Your task to perform on an android device: Clear the shopping cart on costco.com. Add "jbl charge 4" to the cart on costco.com, then select checkout. Image 0: 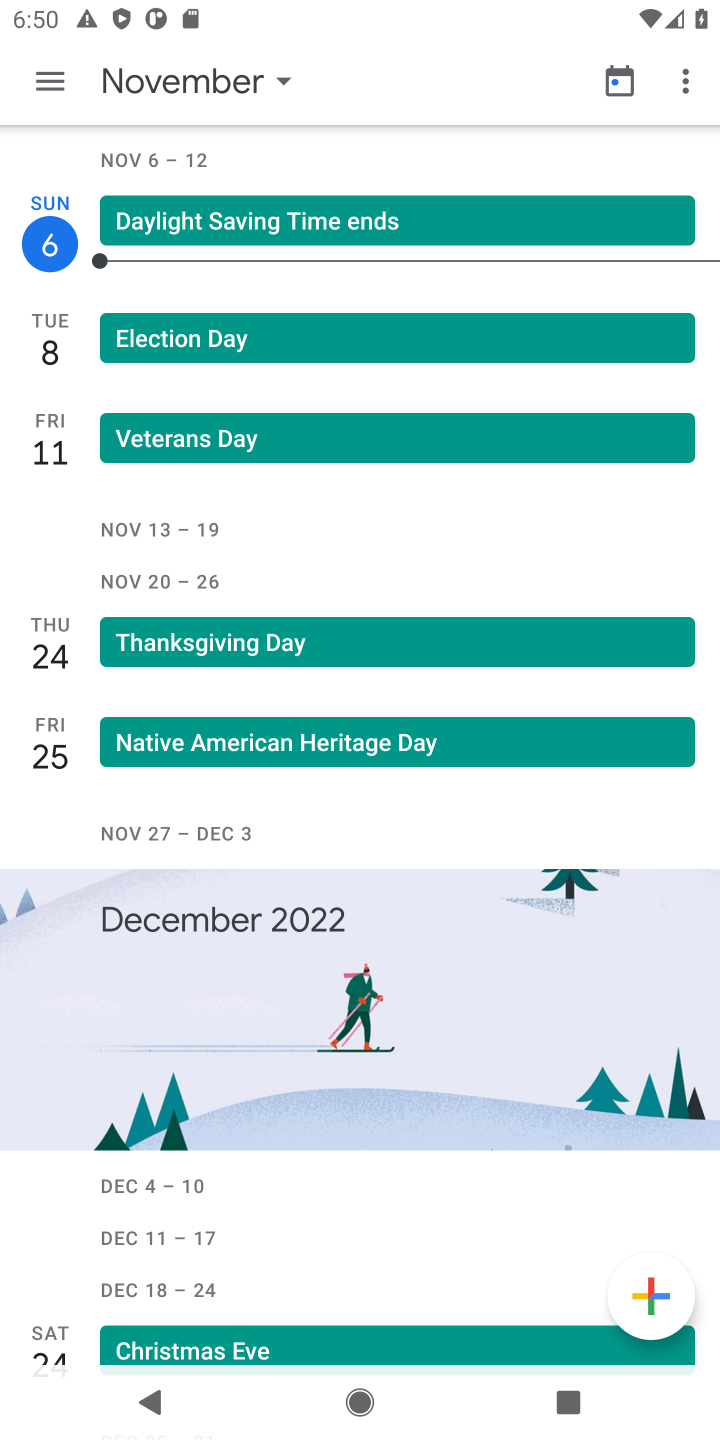
Step 0: press home button
Your task to perform on an android device: Clear the shopping cart on costco.com. Add "jbl charge 4" to the cart on costco.com, then select checkout. Image 1: 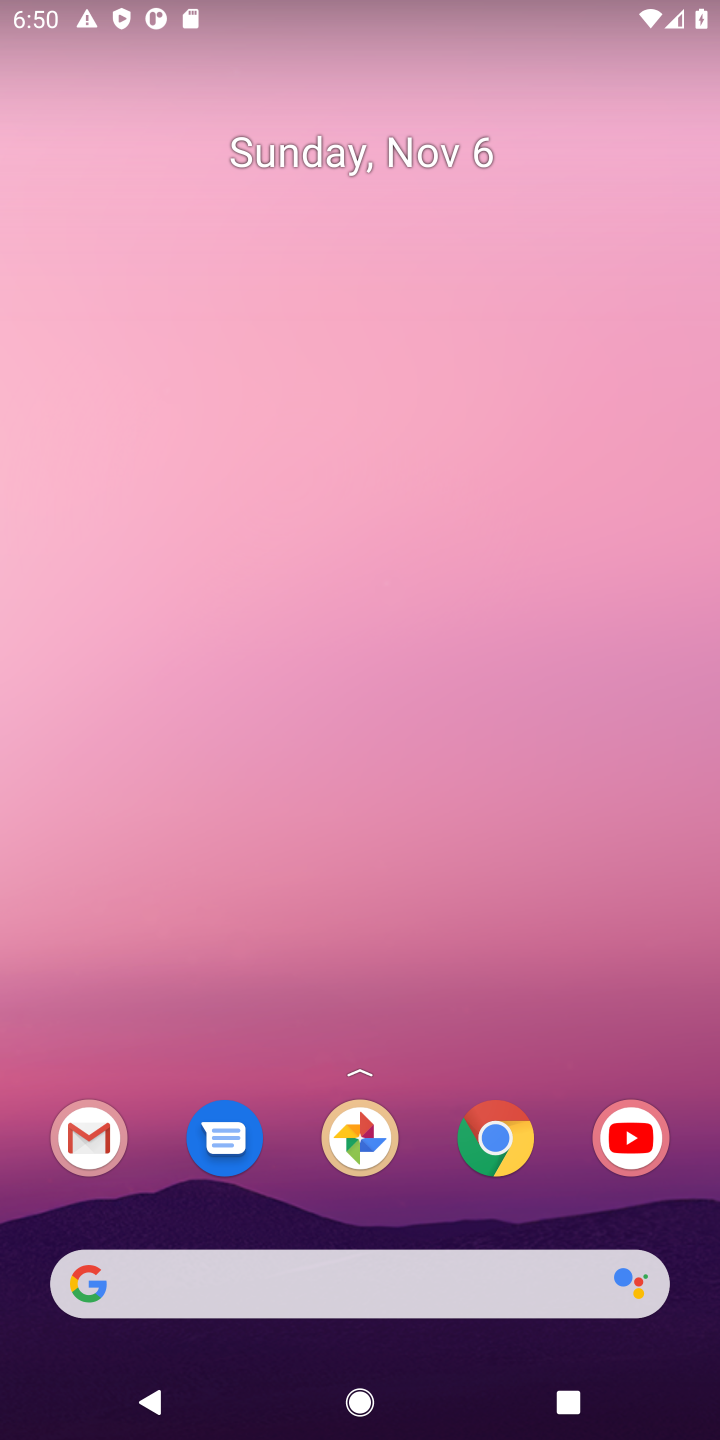
Step 1: click (481, 1143)
Your task to perform on an android device: Clear the shopping cart on costco.com. Add "jbl charge 4" to the cart on costco.com, then select checkout. Image 2: 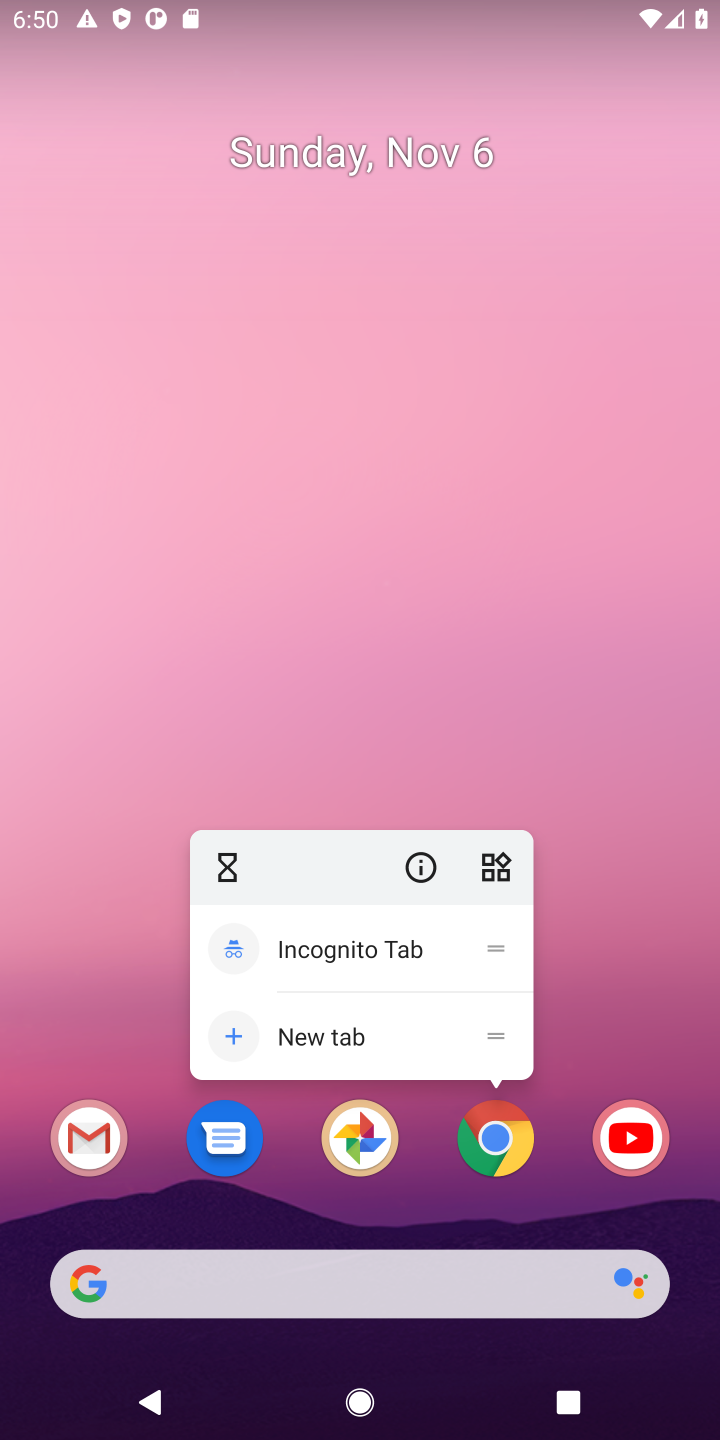
Step 2: click (487, 1145)
Your task to perform on an android device: Clear the shopping cart on costco.com. Add "jbl charge 4" to the cart on costco.com, then select checkout. Image 3: 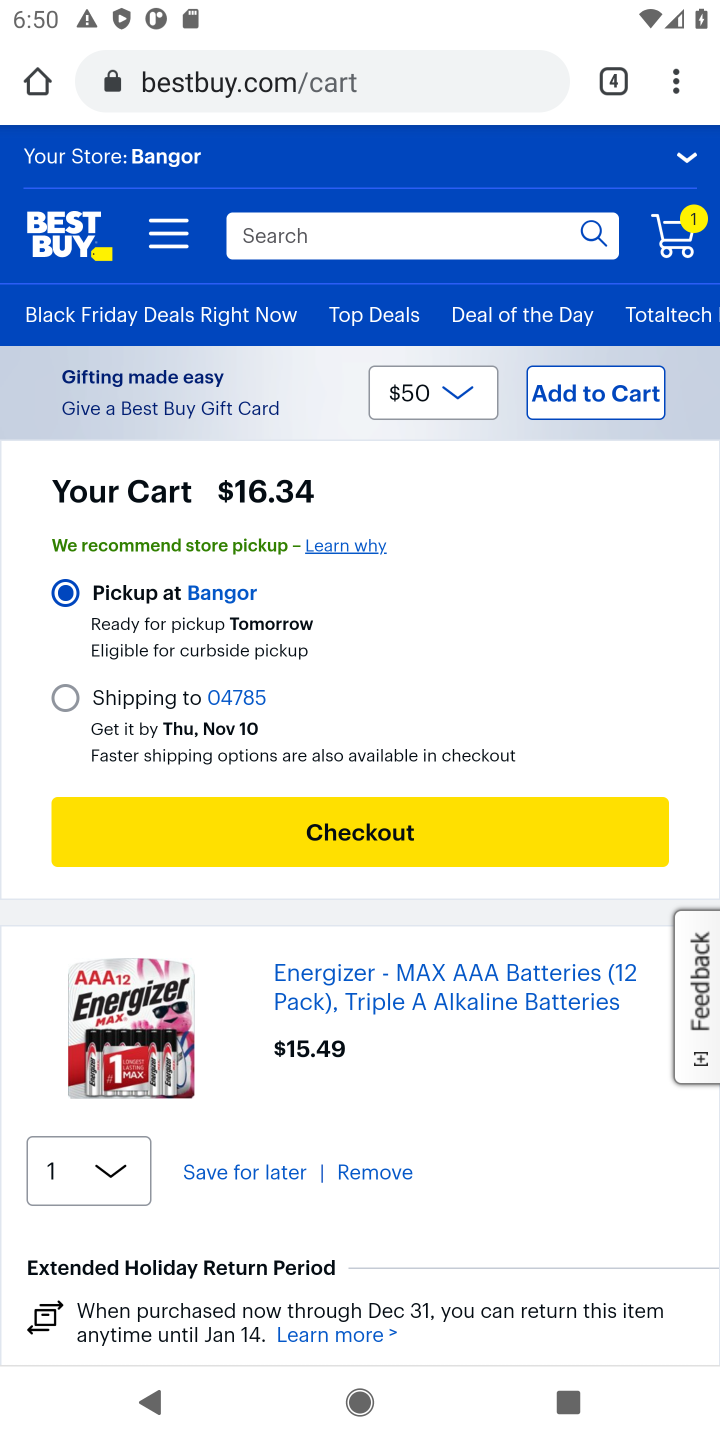
Step 3: click (613, 76)
Your task to perform on an android device: Clear the shopping cart on costco.com. Add "jbl charge 4" to the cart on costco.com, then select checkout. Image 4: 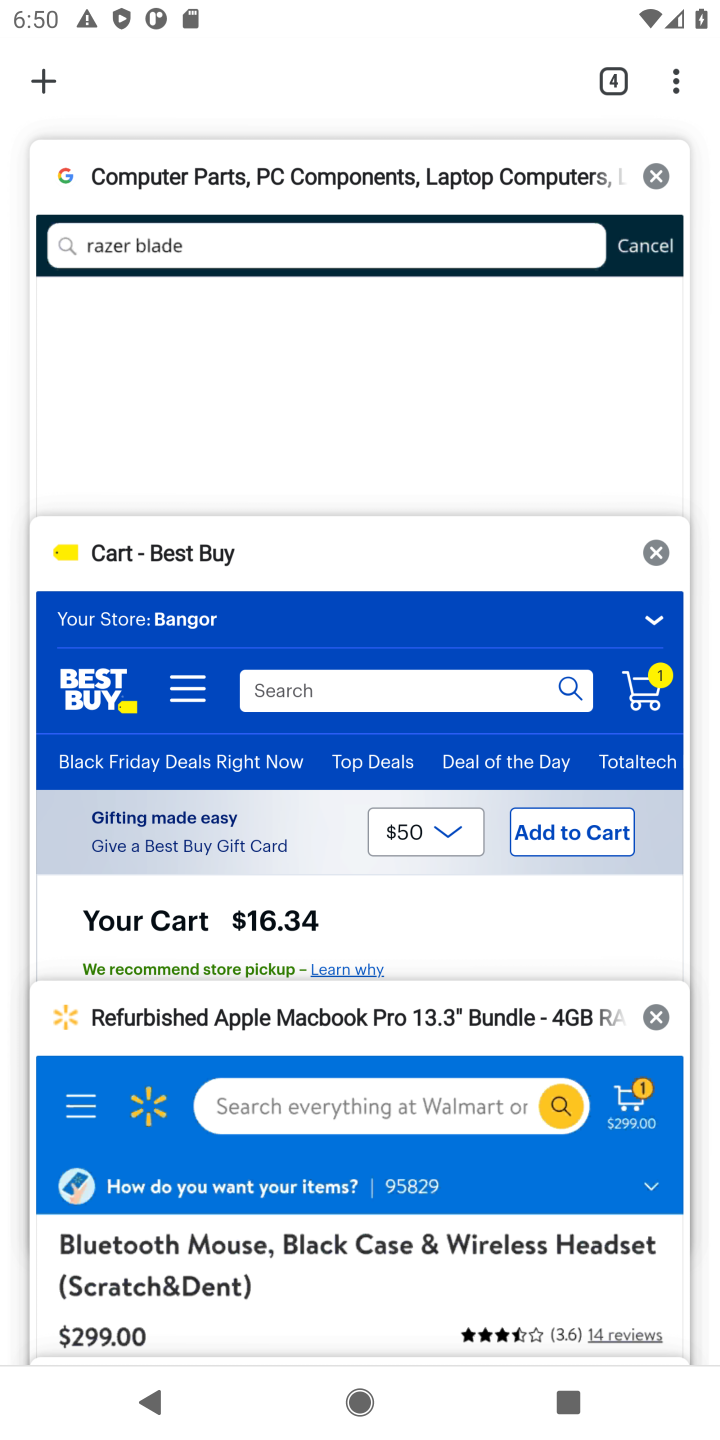
Step 4: click (31, 77)
Your task to perform on an android device: Clear the shopping cart on costco.com. Add "jbl charge 4" to the cart on costco.com, then select checkout. Image 5: 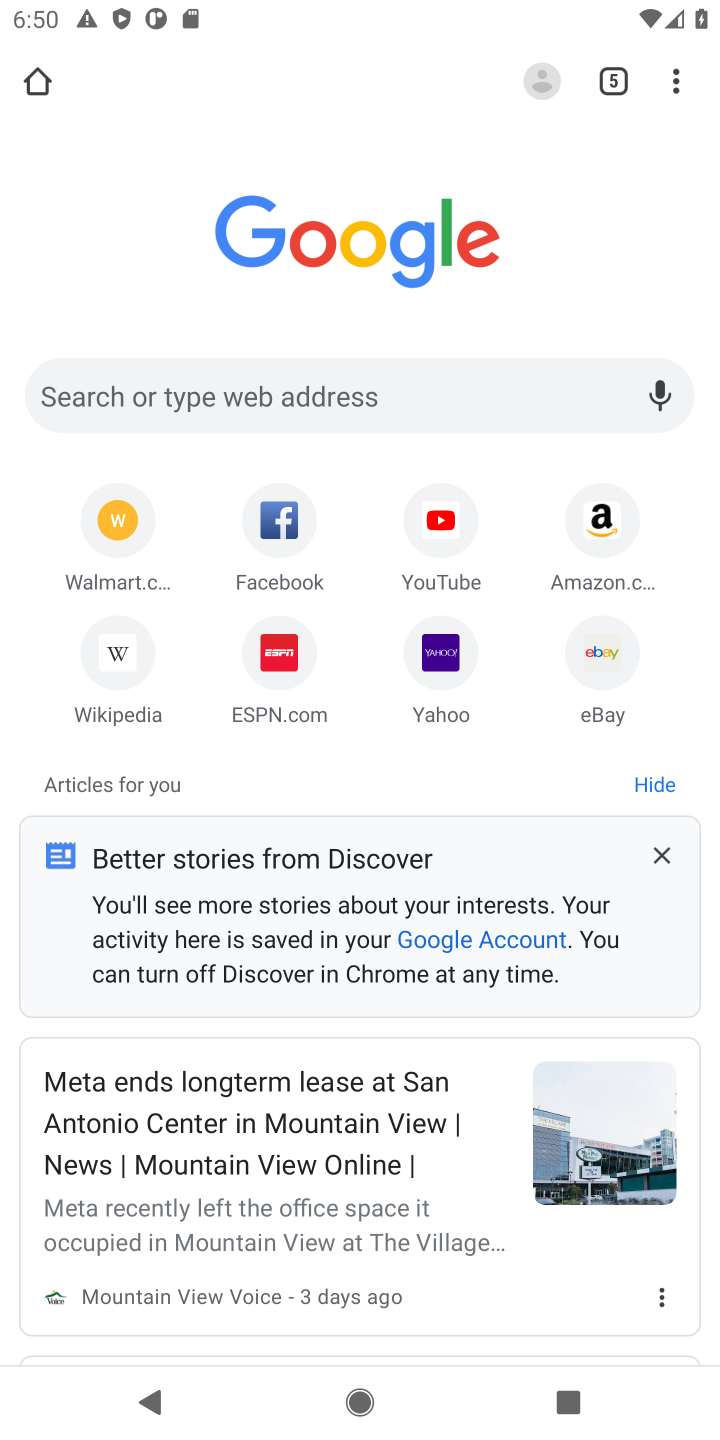
Step 5: click (246, 387)
Your task to perform on an android device: Clear the shopping cart on costco.com. Add "jbl charge 4" to the cart on costco.com, then select checkout. Image 6: 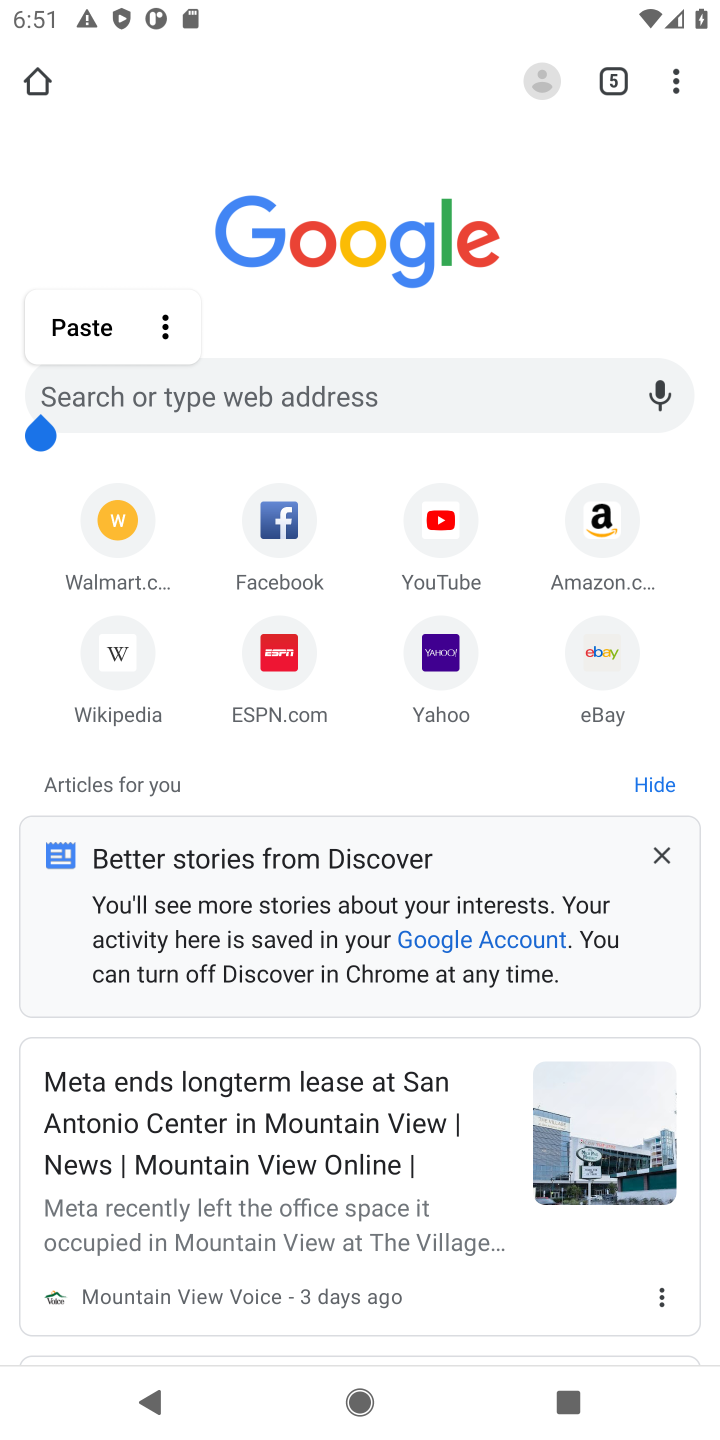
Step 6: click (298, 413)
Your task to perform on an android device: Clear the shopping cart on costco.com. Add "jbl charge 4" to the cart on costco.com, then select checkout. Image 7: 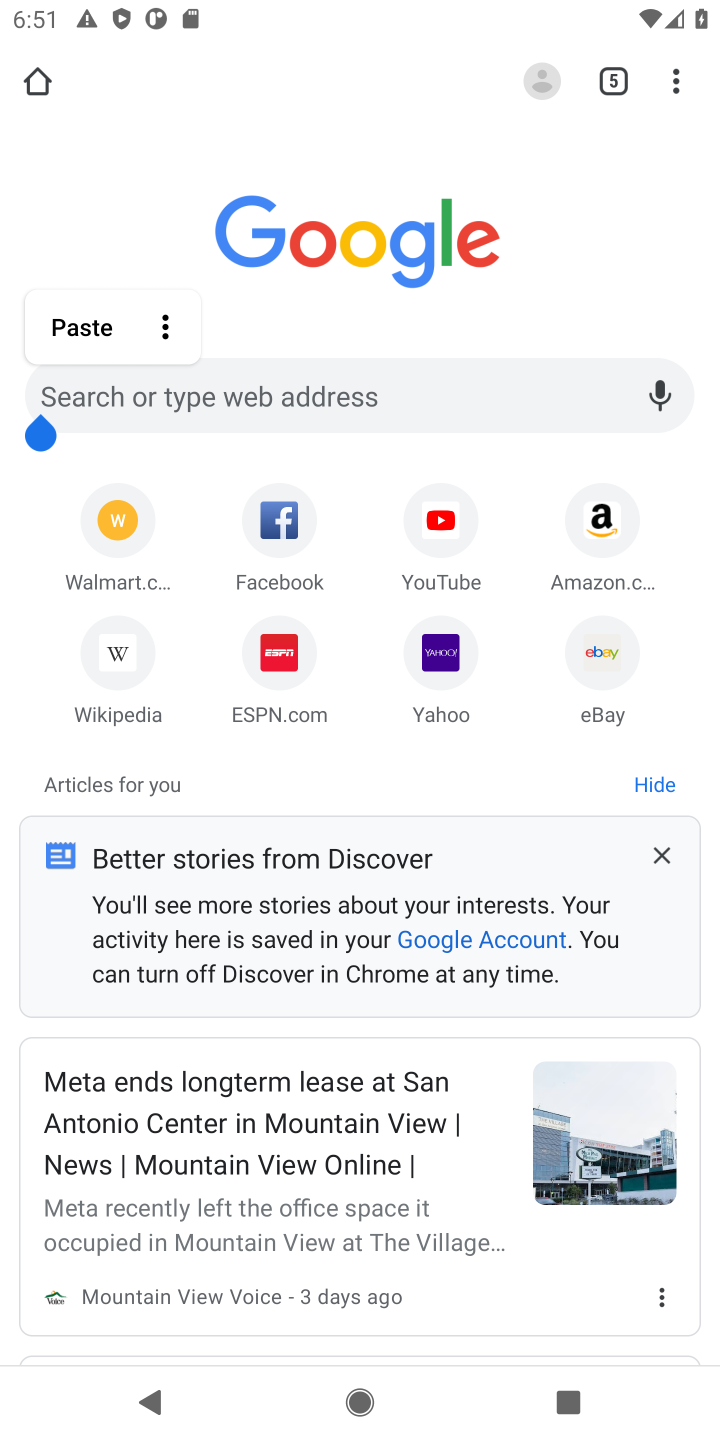
Step 7: click (357, 398)
Your task to perform on an android device: Clear the shopping cart on costco.com. Add "jbl charge 4" to the cart on costco.com, then select checkout. Image 8: 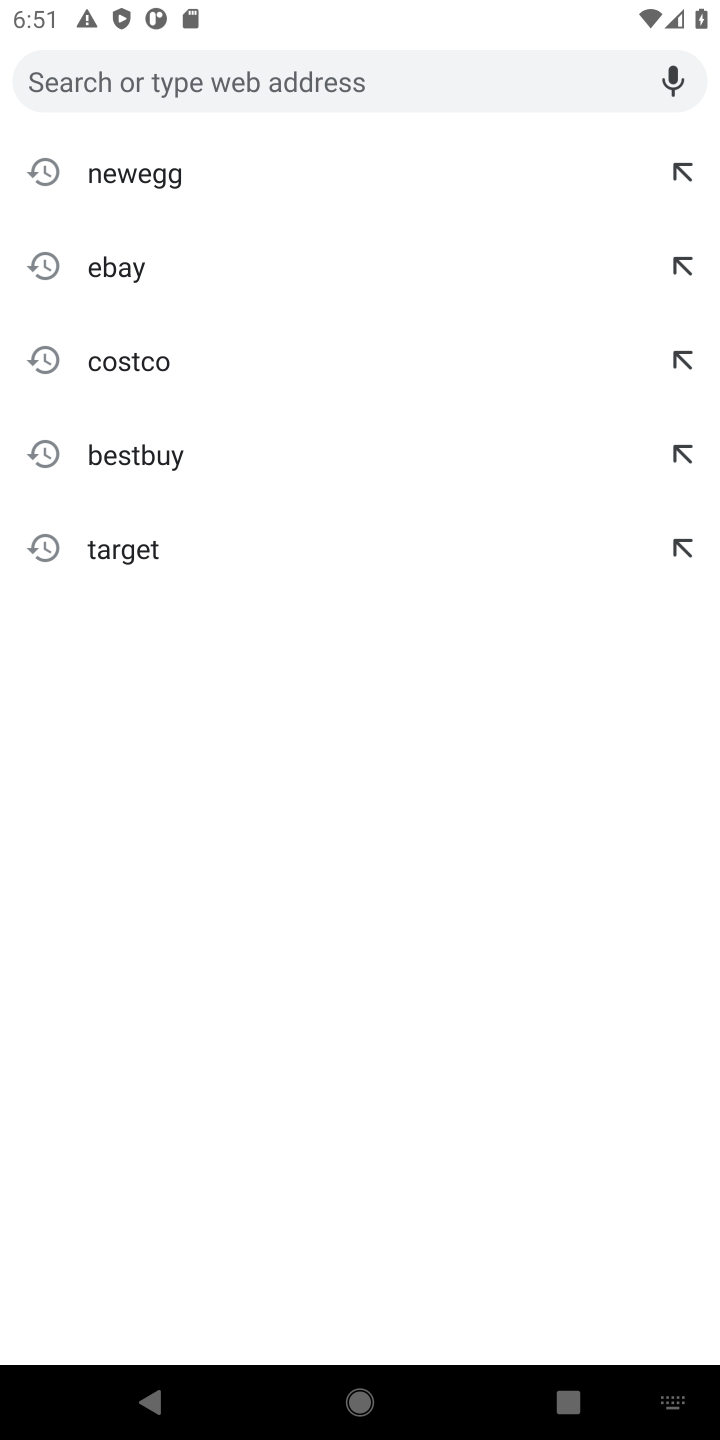
Step 8: click (220, 362)
Your task to perform on an android device: Clear the shopping cart on costco.com. Add "jbl charge 4" to the cart on costco.com, then select checkout. Image 9: 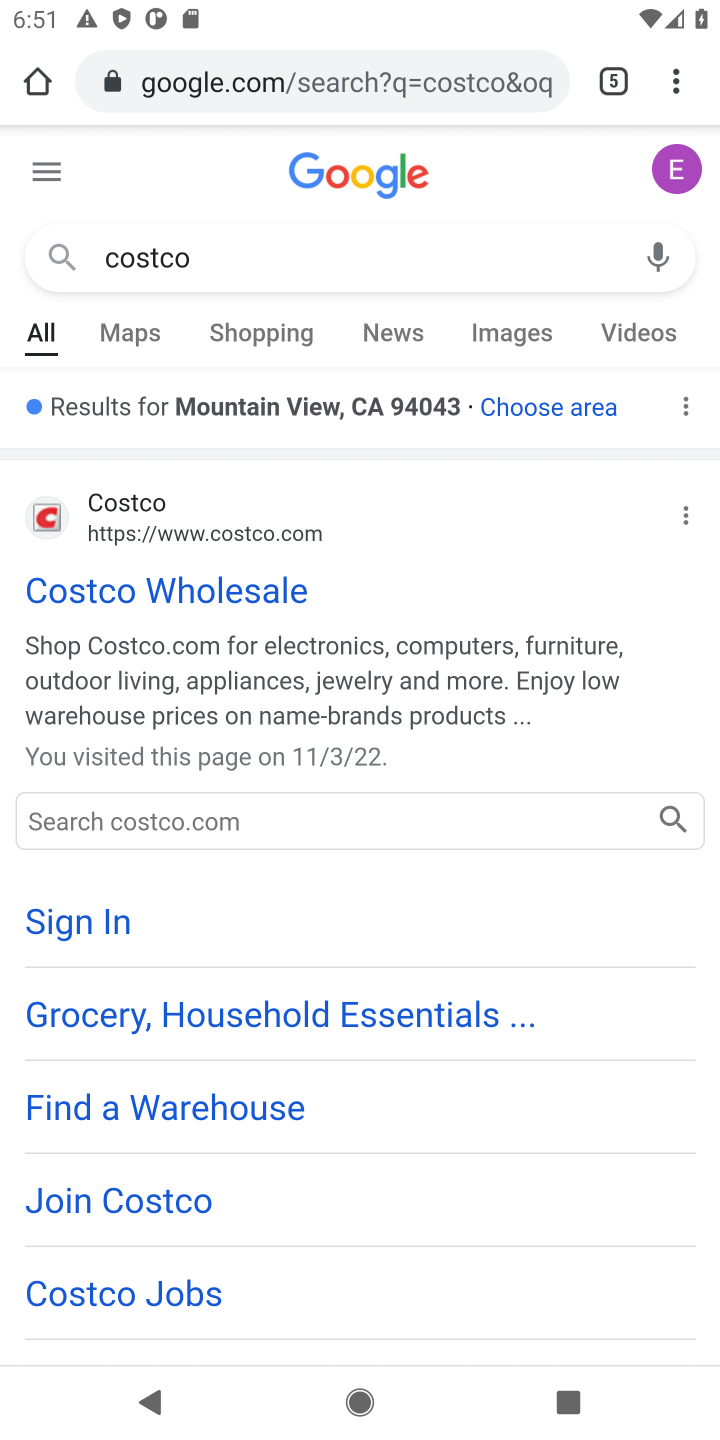
Step 9: click (158, 590)
Your task to perform on an android device: Clear the shopping cart on costco.com. Add "jbl charge 4" to the cart on costco.com, then select checkout. Image 10: 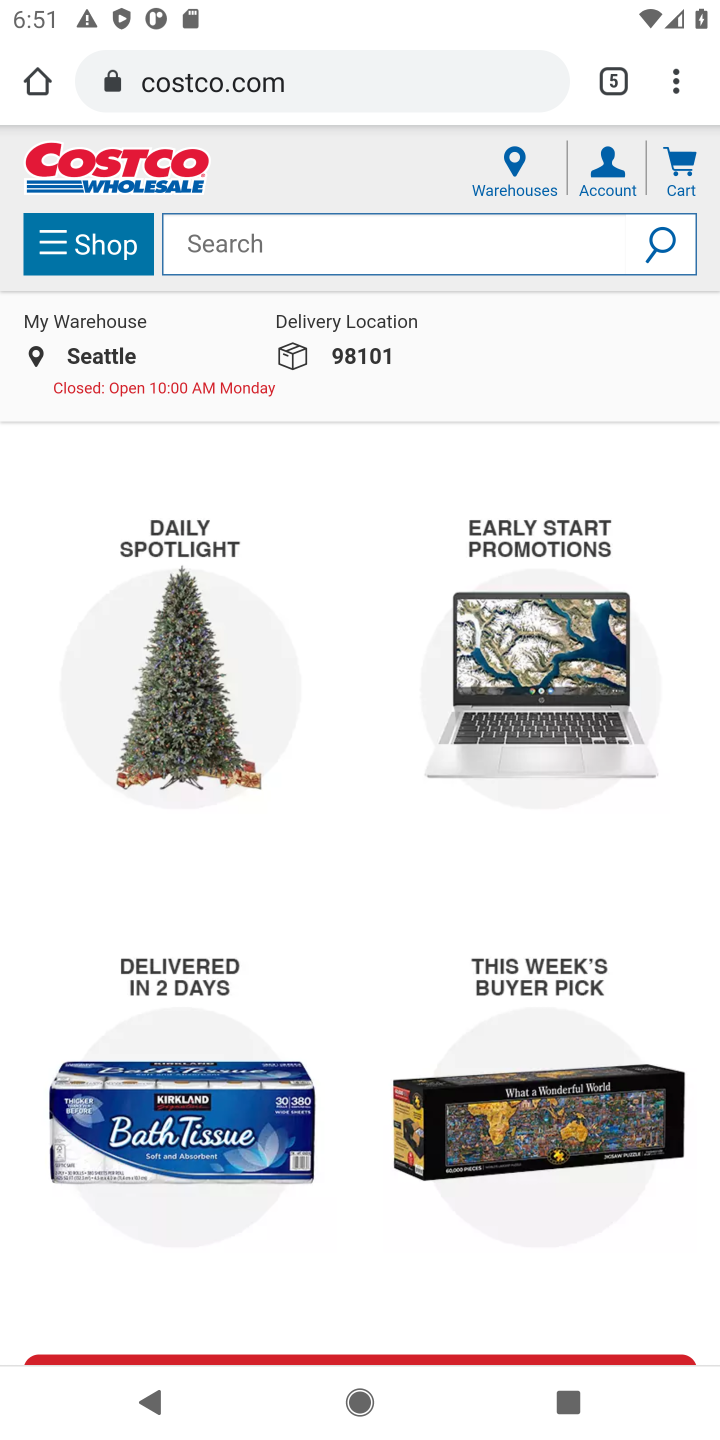
Step 10: click (258, 255)
Your task to perform on an android device: Clear the shopping cart on costco.com. Add "jbl charge 4" to the cart on costco.com, then select checkout. Image 11: 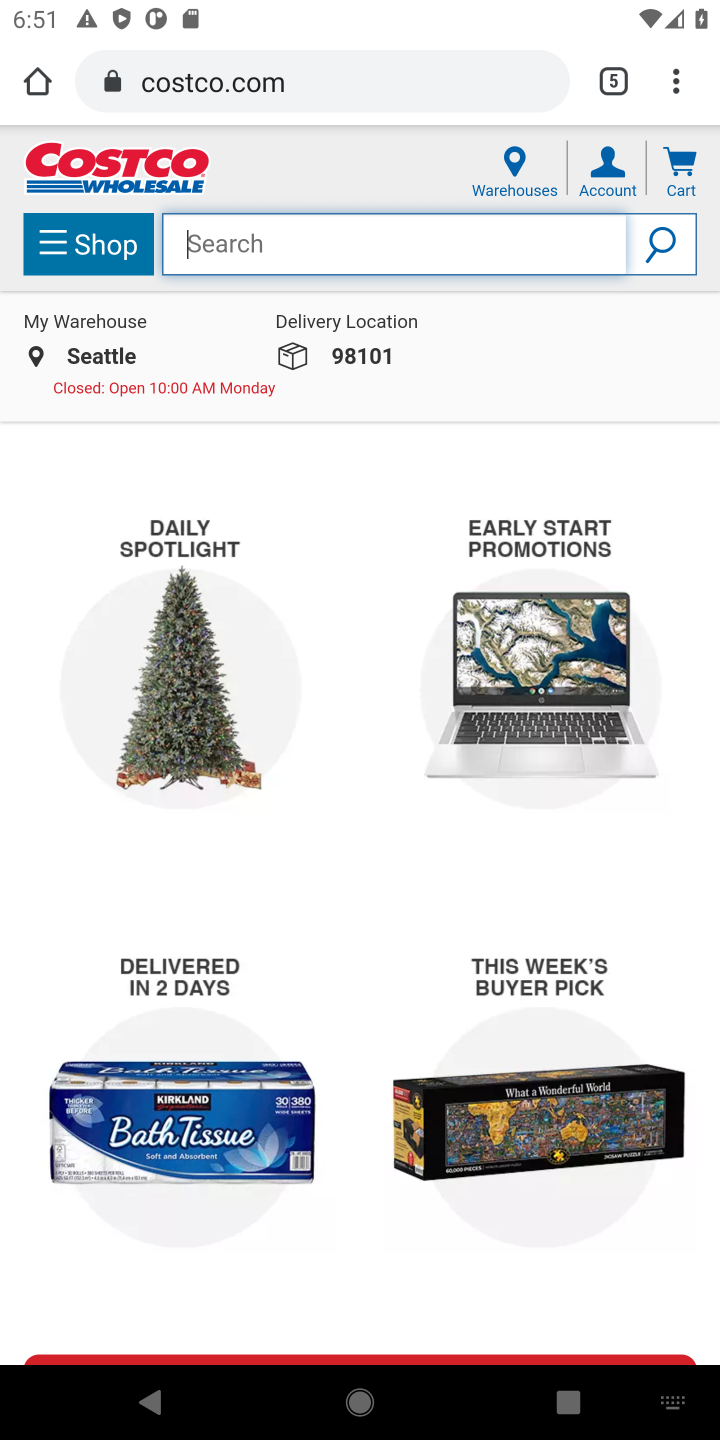
Step 11: click (222, 242)
Your task to perform on an android device: Clear the shopping cart on costco.com. Add "jbl charge 4" to the cart on costco.com, then select checkout. Image 12: 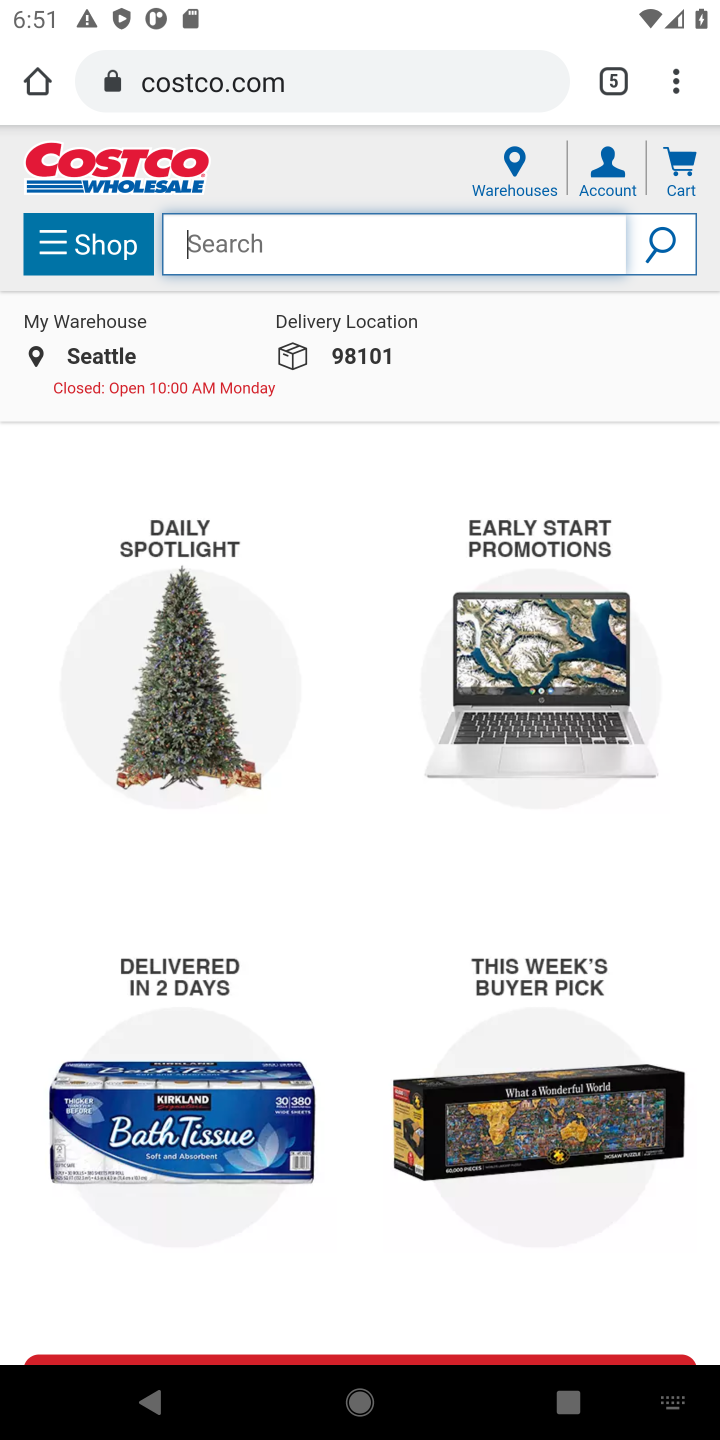
Step 12: type "jbl charge 4"
Your task to perform on an android device: Clear the shopping cart on costco.com. Add "jbl charge 4" to the cart on costco.com, then select checkout. Image 13: 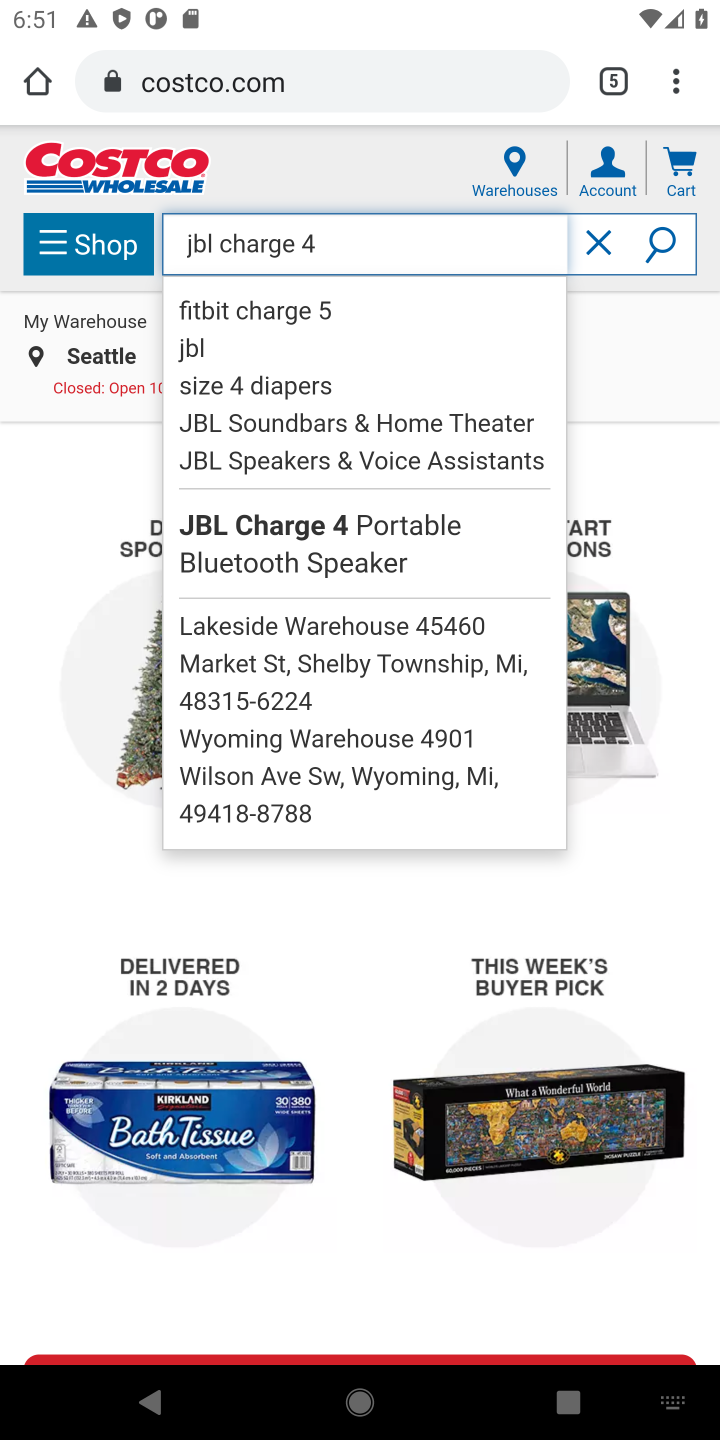
Step 13: click (298, 565)
Your task to perform on an android device: Clear the shopping cart on costco.com. Add "jbl charge 4" to the cart on costco.com, then select checkout. Image 14: 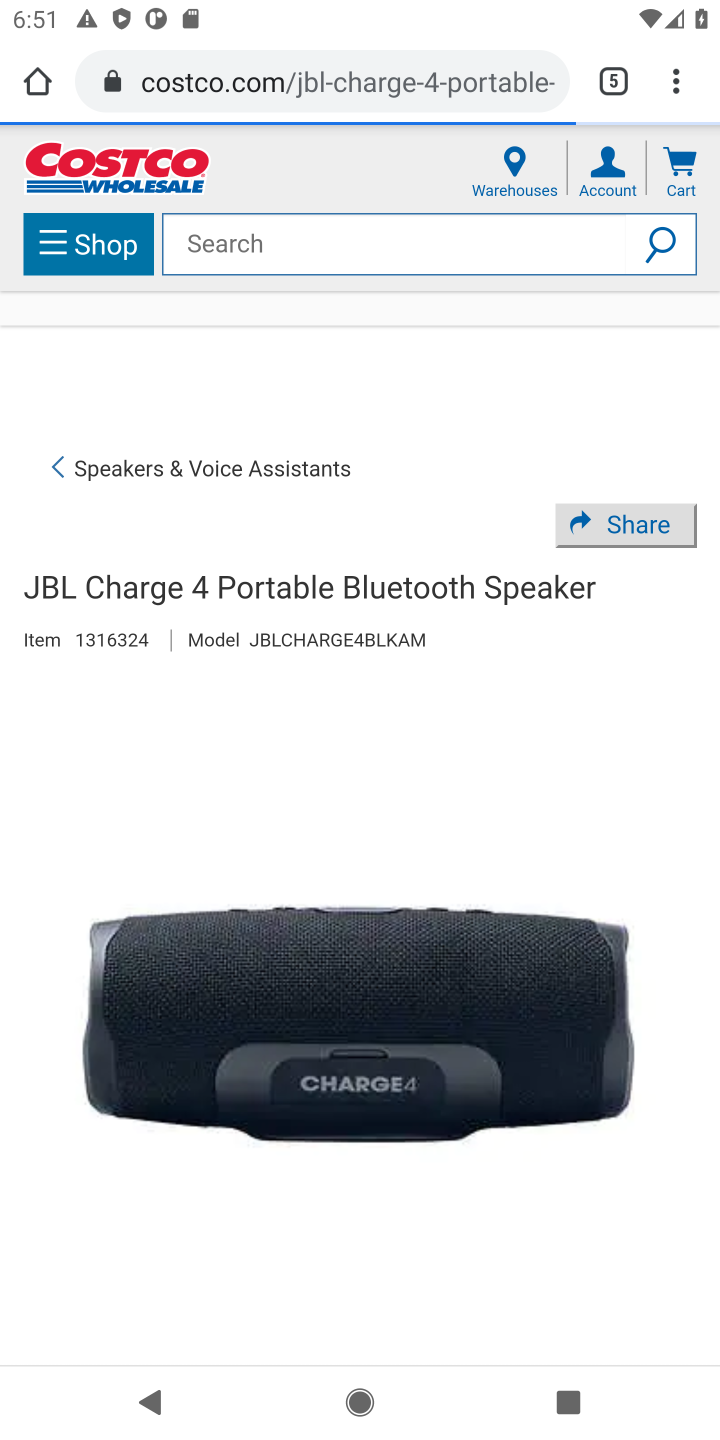
Step 14: drag from (393, 1049) to (538, 309)
Your task to perform on an android device: Clear the shopping cart on costco.com. Add "jbl charge 4" to the cart on costco.com, then select checkout. Image 15: 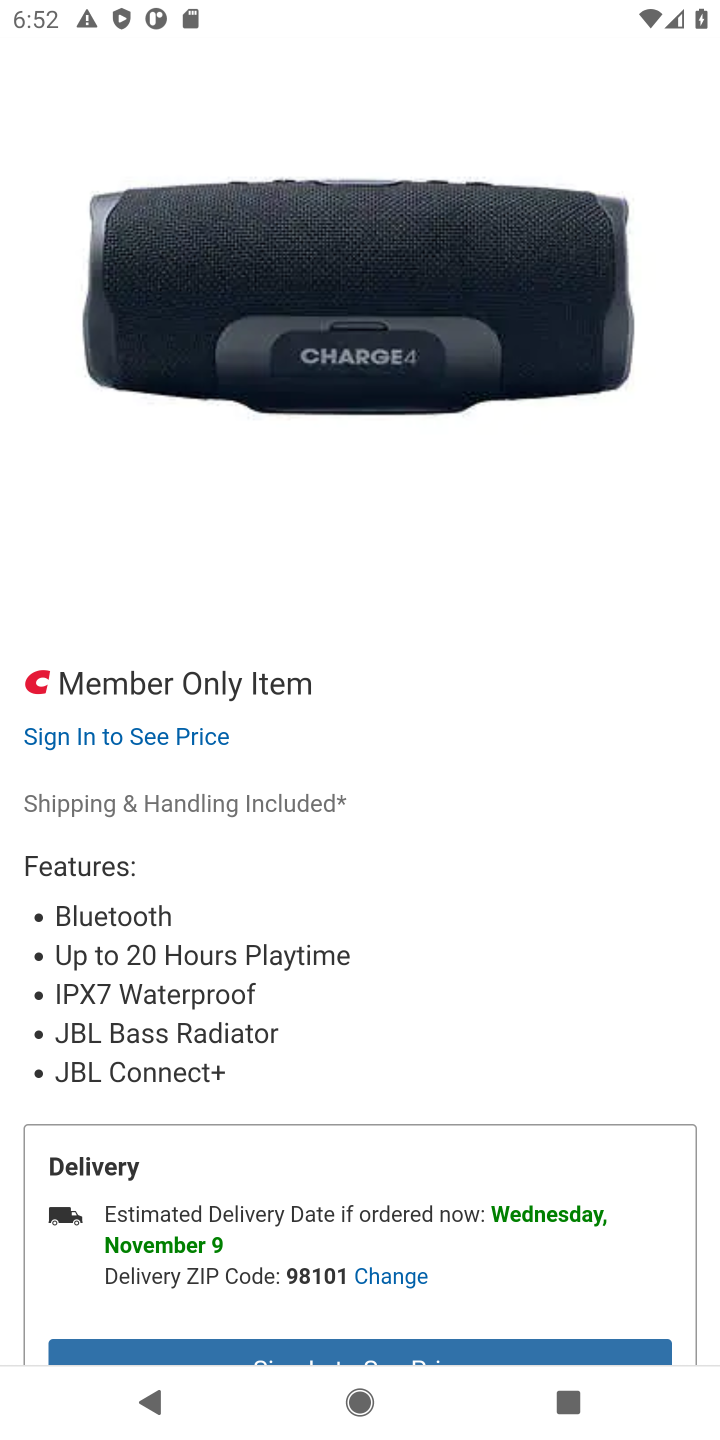
Step 15: drag from (384, 1217) to (520, 446)
Your task to perform on an android device: Clear the shopping cart on costco.com. Add "jbl charge 4" to the cart on costco.com, then select checkout. Image 16: 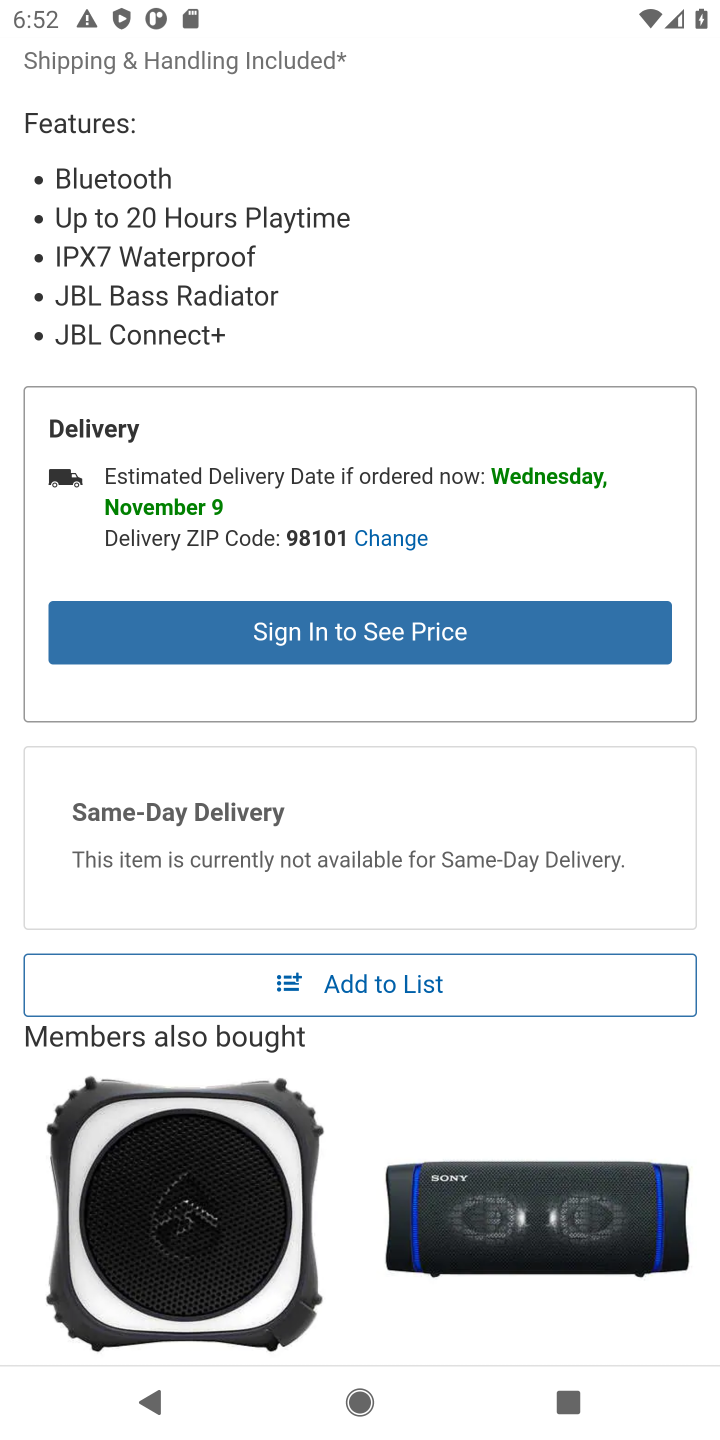
Step 16: click (350, 980)
Your task to perform on an android device: Clear the shopping cart on costco.com. Add "jbl charge 4" to the cart on costco.com, then select checkout. Image 17: 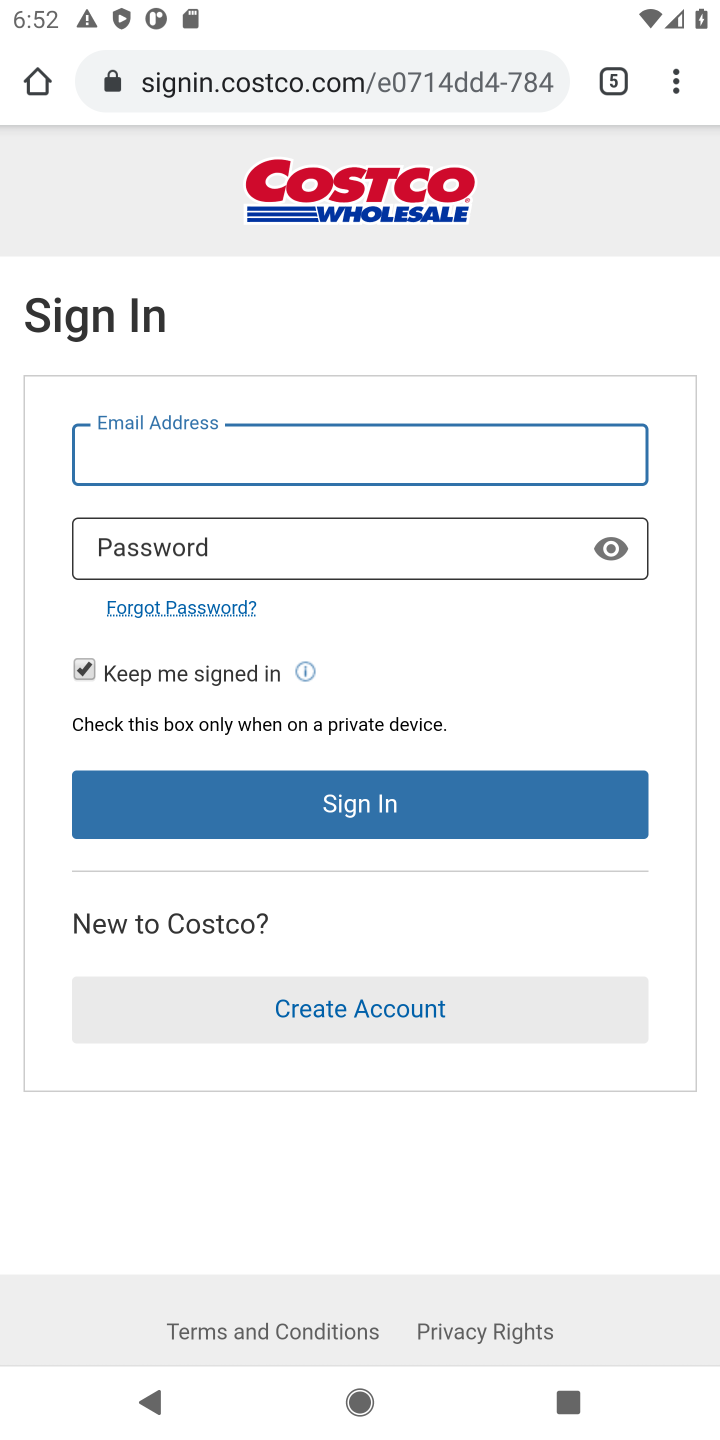
Step 17: task complete